Your task to perform on an android device: Go to accessibility settings Image 0: 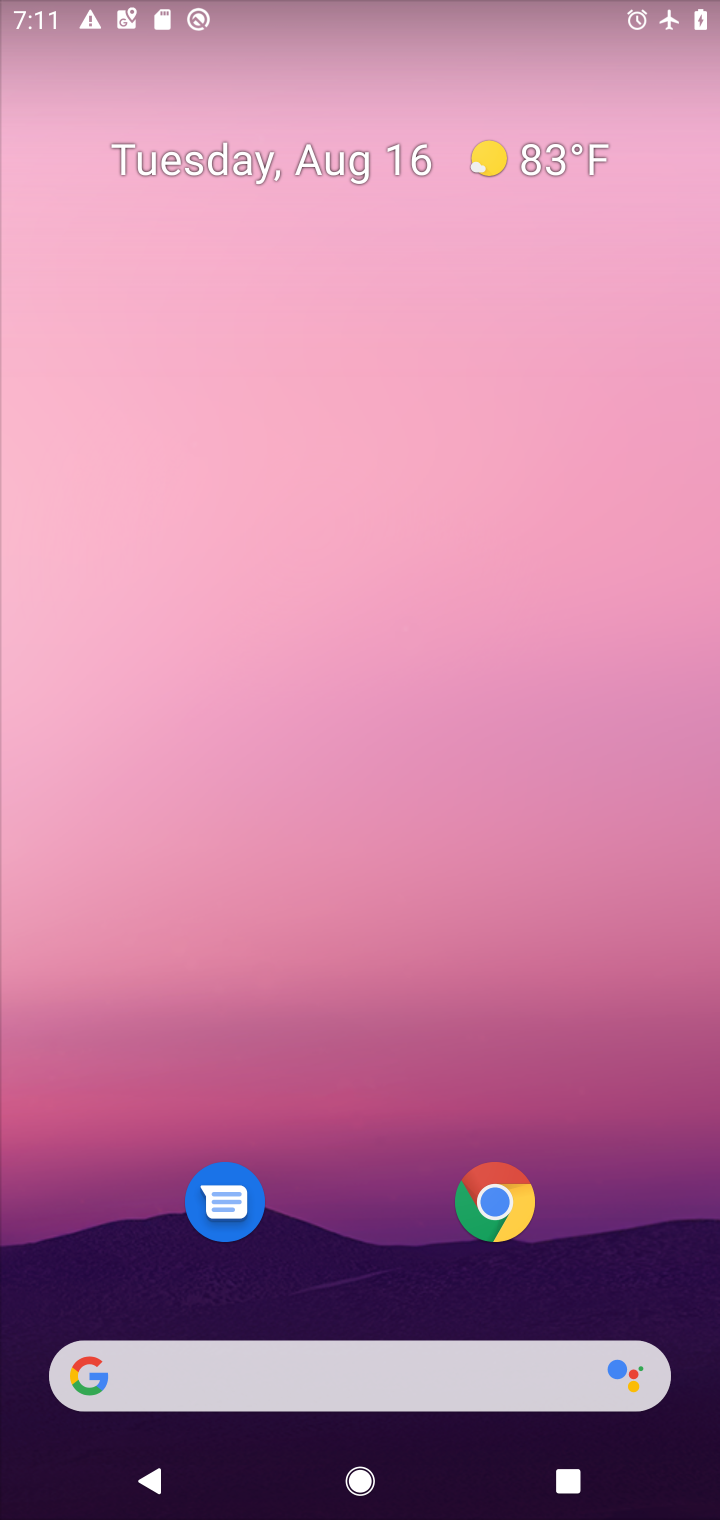
Step 0: drag from (577, 792) to (266, 8)
Your task to perform on an android device: Go to accessibility settings Image 1: 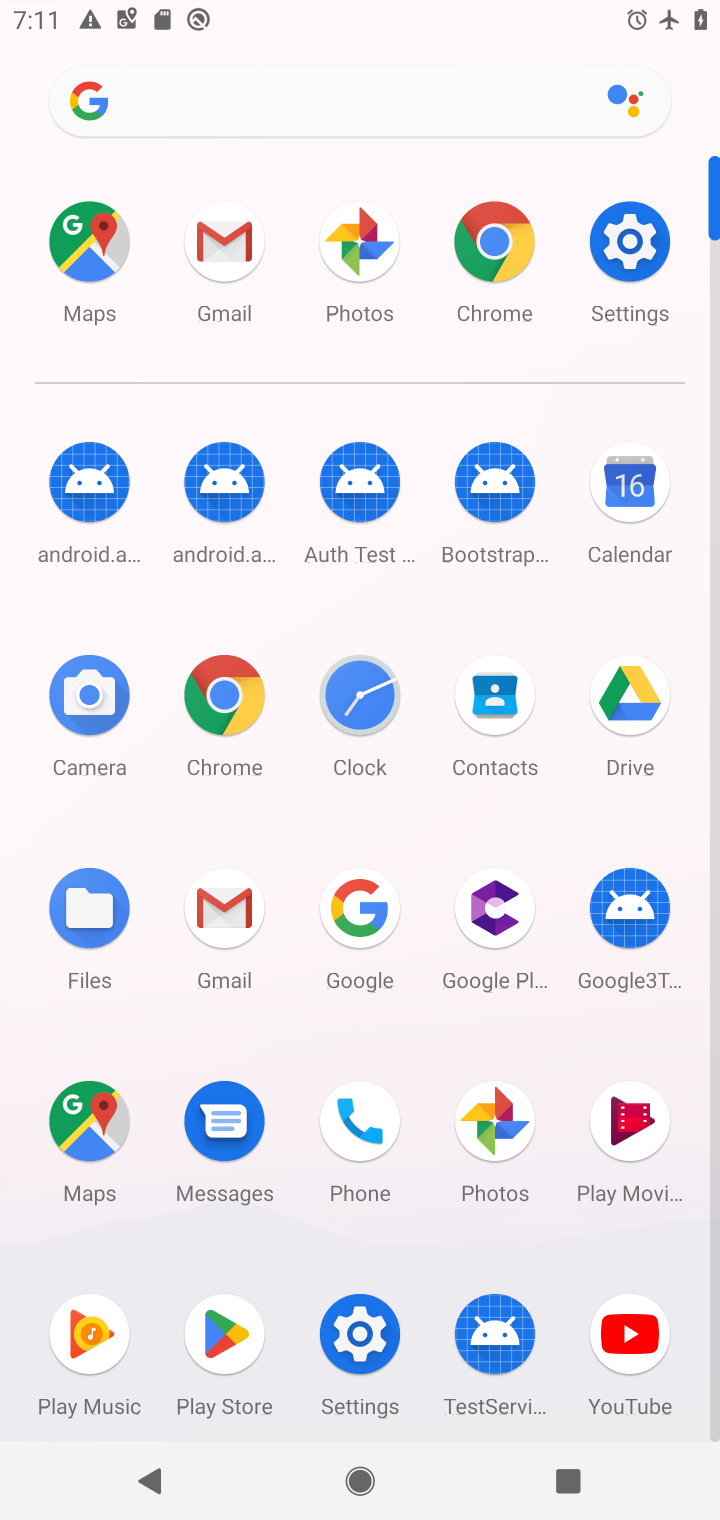
Step 1: click (617, 270)
Your task to perform on an android device: Go to accessibility settings Image 2: 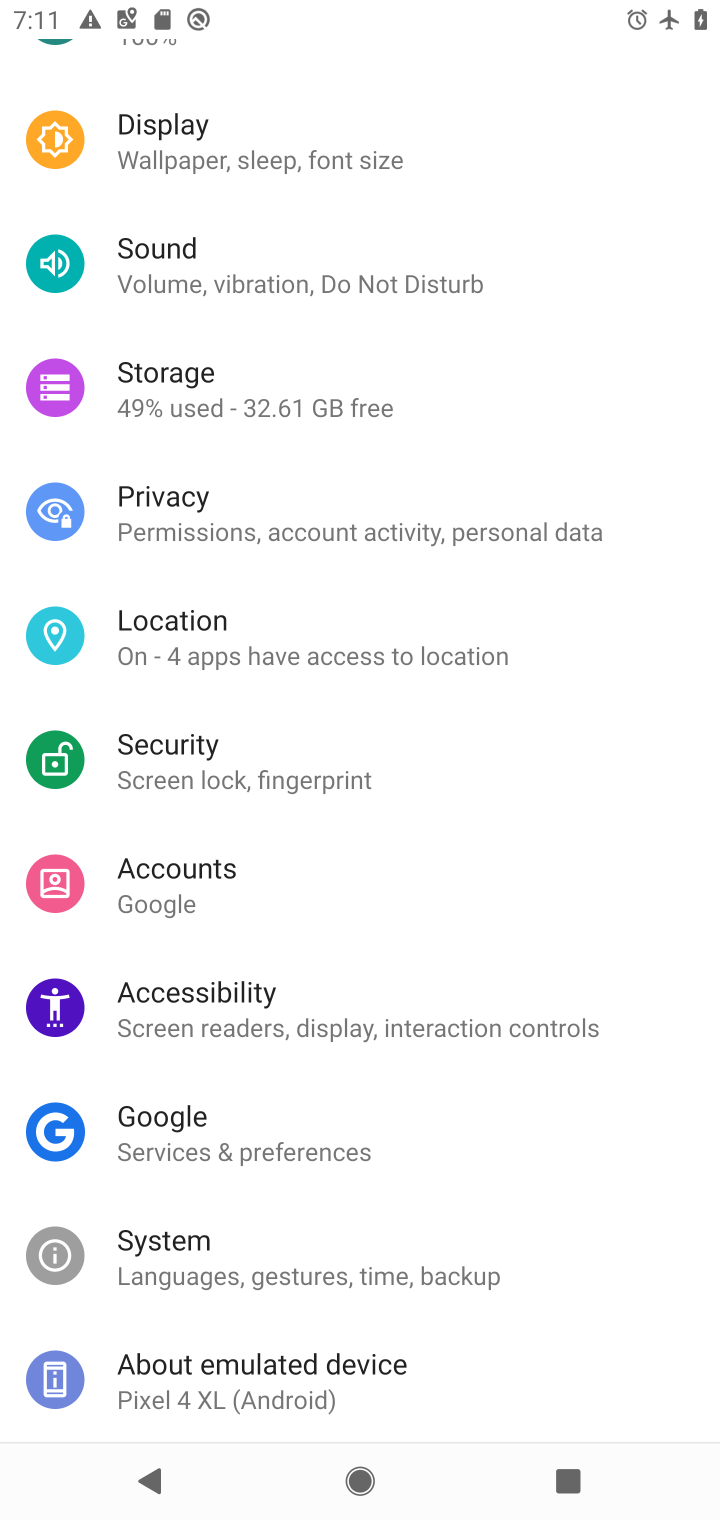
Step 2: click (227, 1005)
Your task to perform on an android device: Go to accessibility settings Image 3: 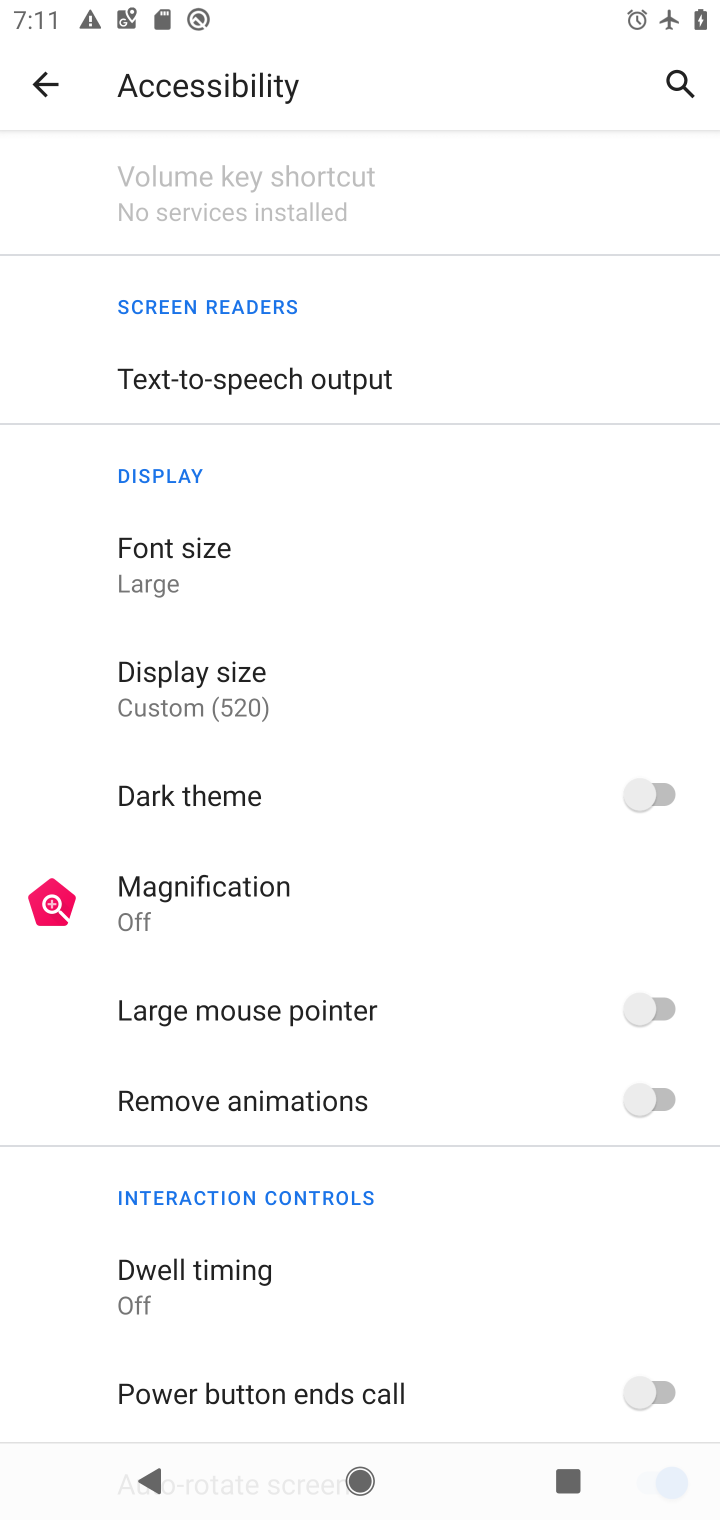
Step 3: task complete